Your task to perform on an android device: Open Reddit.com Image 0: 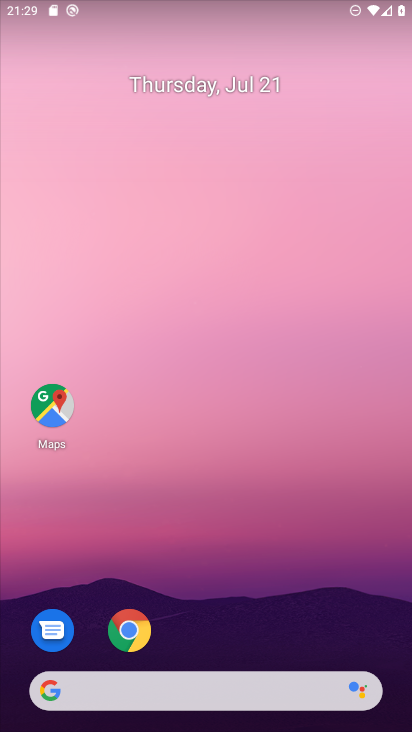
Step 0: drag from (307, 596) to (323, 84)
Your task to perform on an android device: Open Reddit.com Image 1: 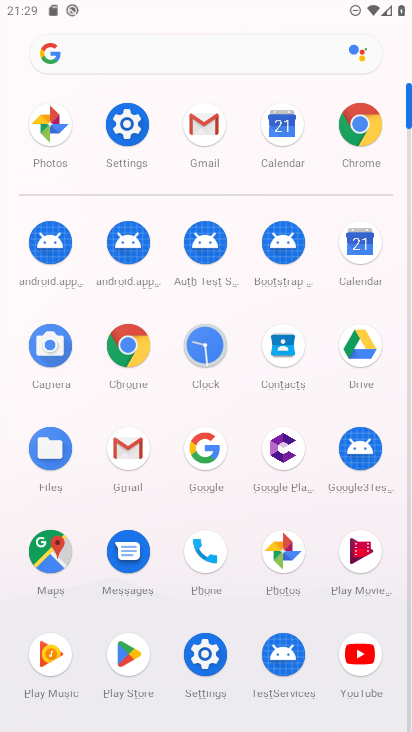
Step 1: click (365, 123)
Your task to perform on an android device: Open Reddit.com Image 2: 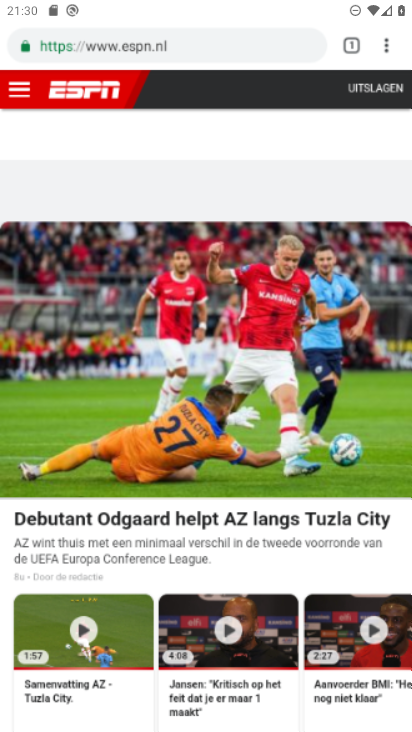
Step 2: click (139, 58)
Your task to perform on an android device: Open Reddit.com Image 3: 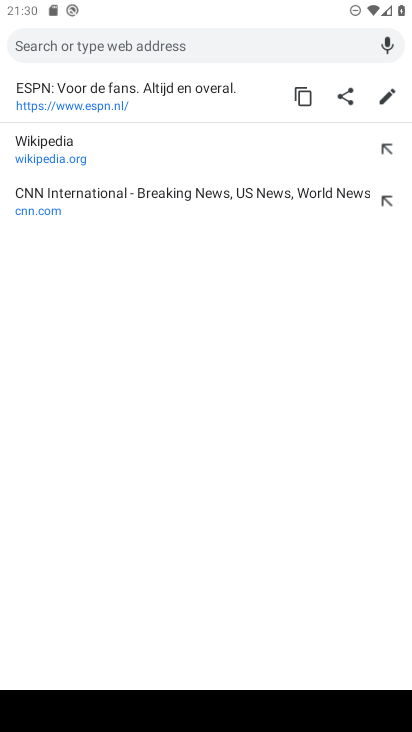
Step 3: type "Reddit.com"
Your task to perform on an android device: Open Reddit.com Image 4: 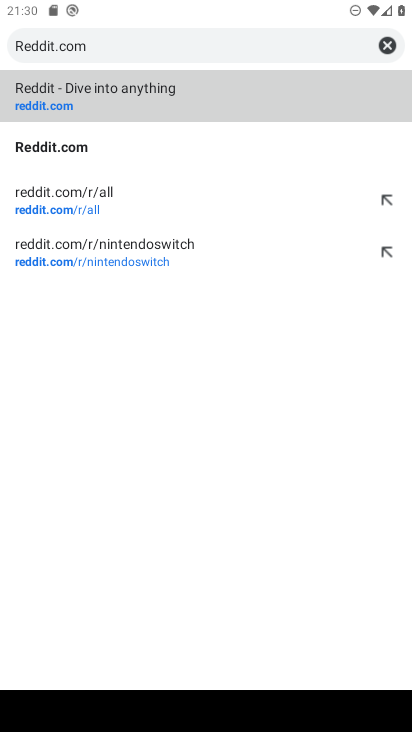
Step 4: click (73, 104)
Your task to perform on an android device: Open Reddit.com Image 5: 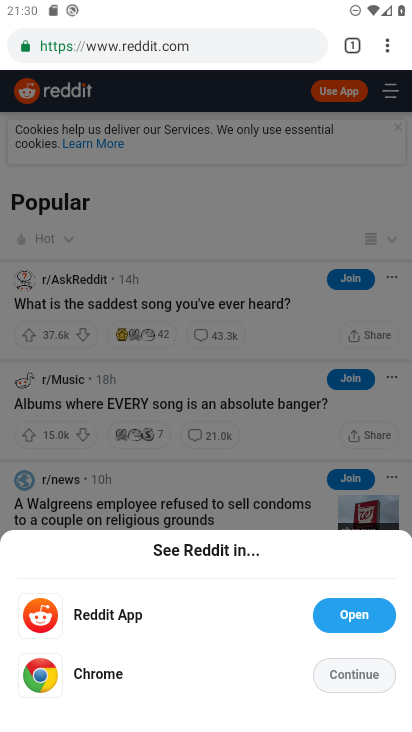
Step 5: task complete